Your task to perform on an android device: turn on notifications settings in the gmail app Image 0: 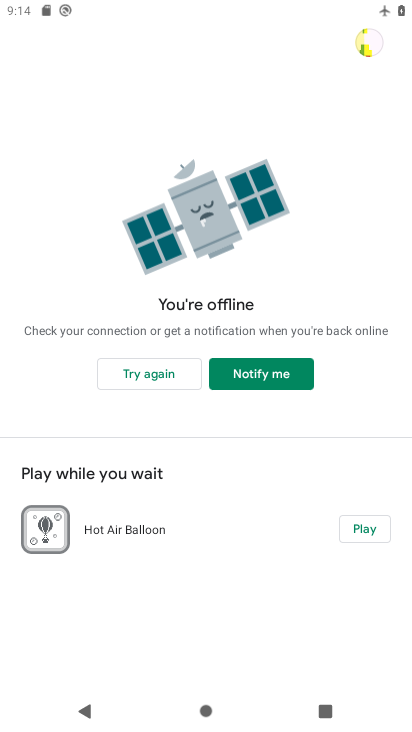
Step 0: press home button
Your task to perform on an android device: turn on notifications settings in the gmail app Image 1: 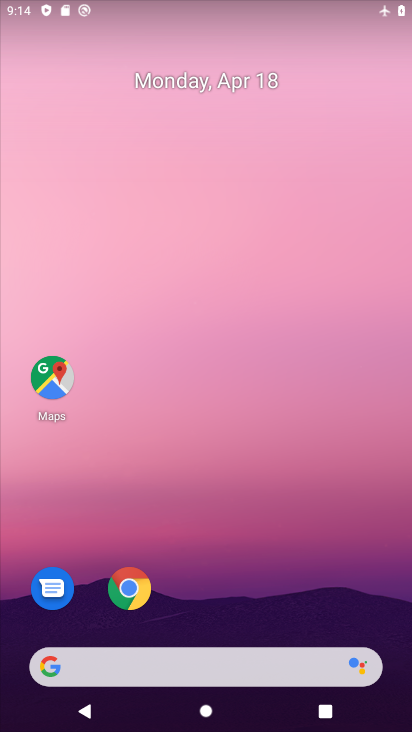
Step 1: drag from (291, 607) to (309, 174)
Your task to perform on an android device: turn on notifications settings in the gmail app Image 2: 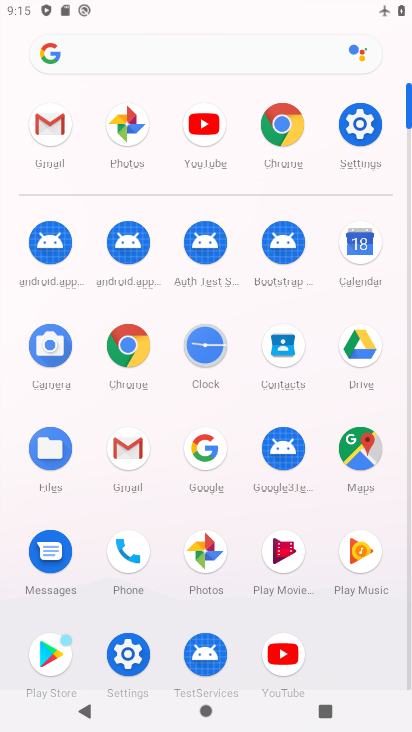
Step 2: click (47, 121)
Your task to perform on an android device: turn on notifications settings in the gmail app Image 3: 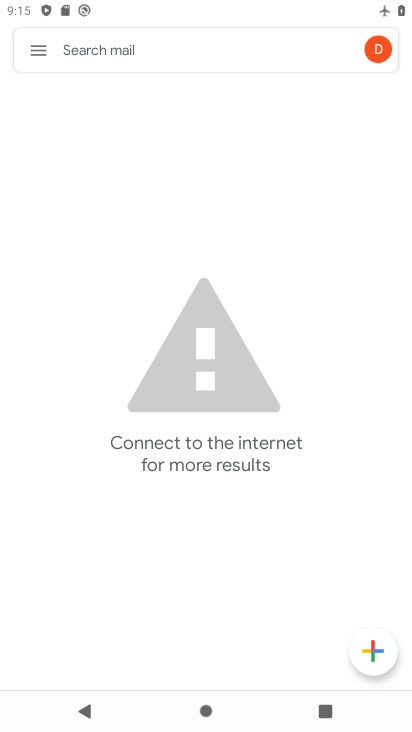
Step 3: click (30, 51)
Your task to perform on an android device: turn on notifications settings in the gmail app Image 4: 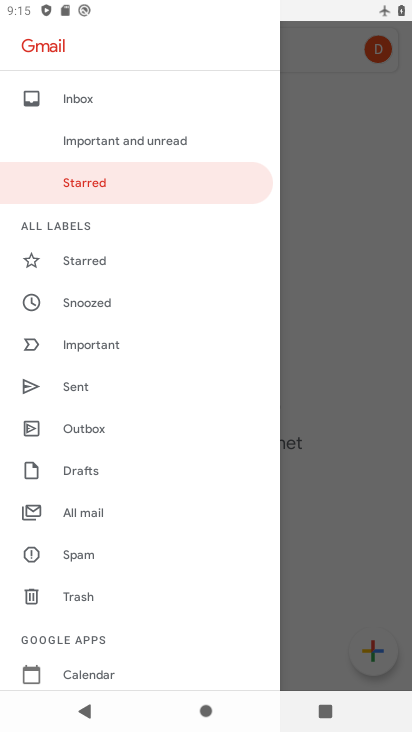
Step 4: drag from (105, 609) to (172, 173)
Your task to perform on an android device: turn on notifications settings in the gmail app Image 5: 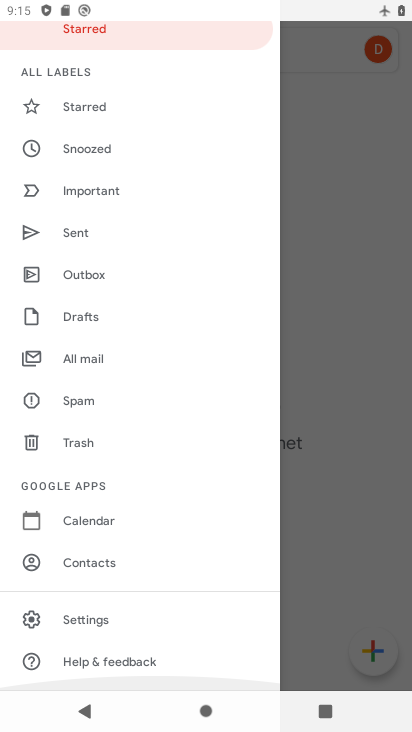
Step 5: click (99, 610)
Your task to perform on an android device: turn on notifications settings in the gmail app Image 6: 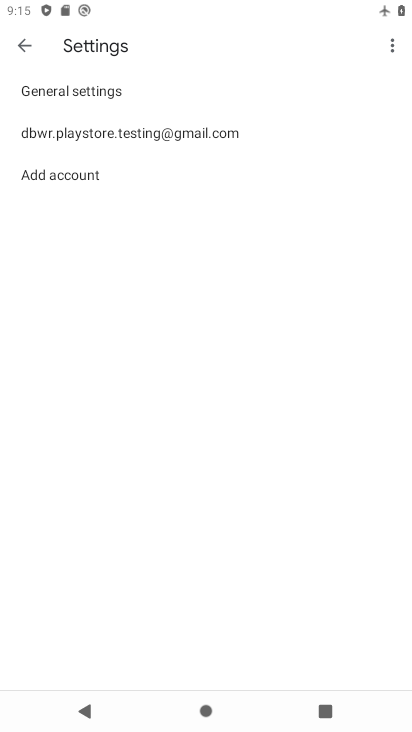
Step 6: click (226, 127)
Your task to perform on an android device: turn on notifications settings in the gmail app Image 7: 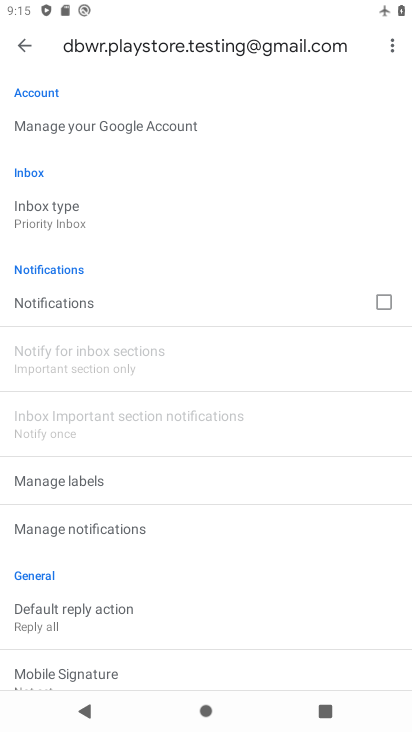
Step 7: click (366, 294)
Your task to perform on an android device: turn on notifications settings in the gmail app Image 8: 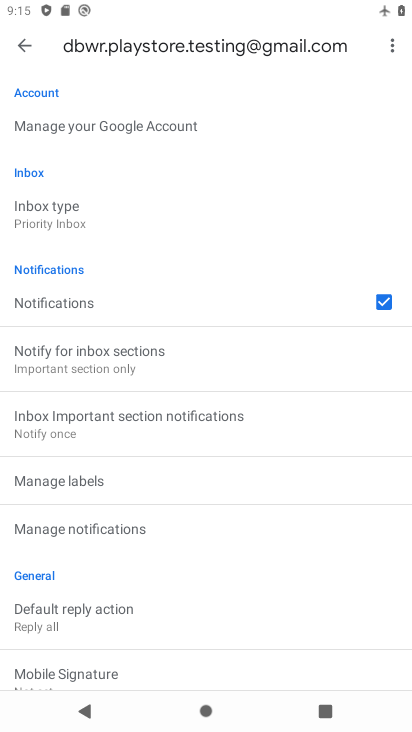
Step 8: task complete